Your task to perform on an android device: snooze an email in the gmail app Image 0: 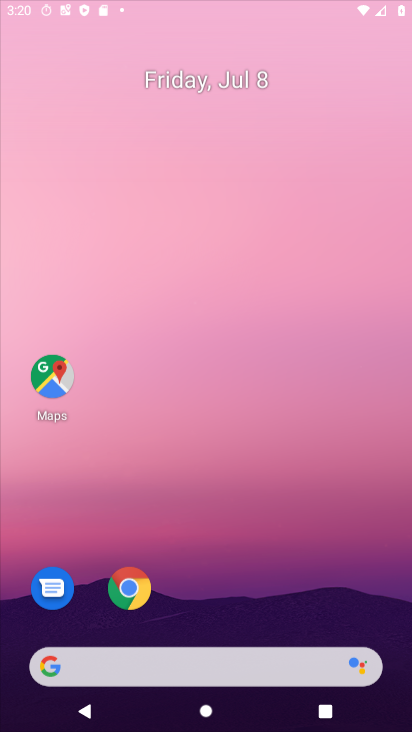
Step 0: press home button
Your task to perform on an android device: snooze an email in the gmail app Image 1: 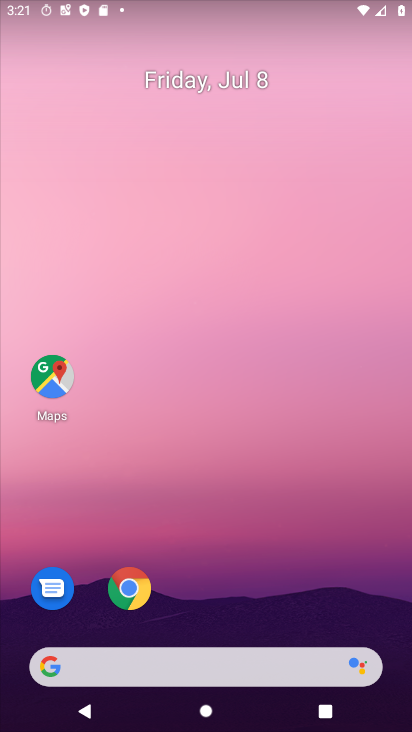
Step 1: drag from (215, 640) to (218, 180)
Your task to perform on an android device: snooze an email in the gmail app Image 2: 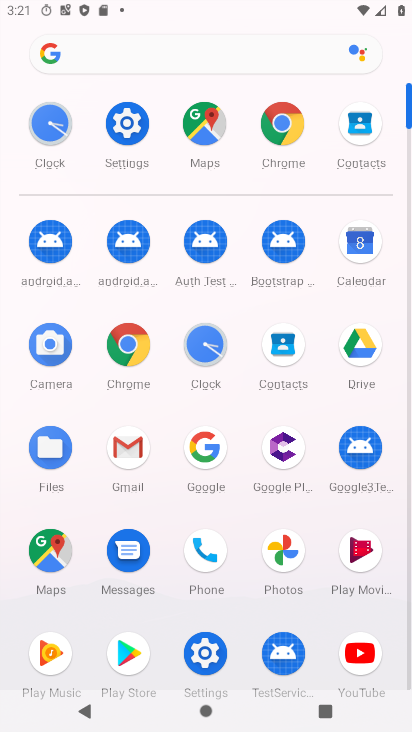
Step 2: click (126, 452)
Your task to perform on an android device: snooze an email in the gmail app Image 3: 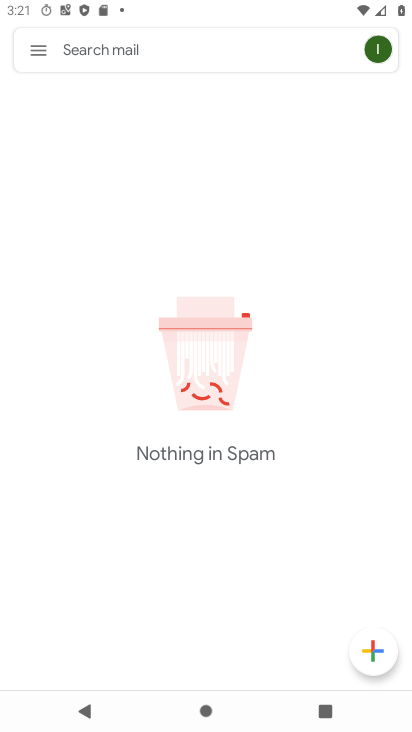
Step 3: click (38, 48)
Your task to perform on an android device: snooze an email in the gmail app Image 4: 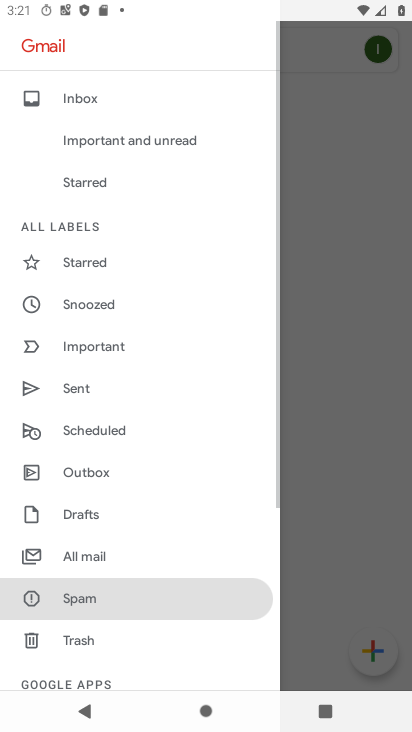
Step 4: click (71, 562)
Your task to perform on an android device: snooze an email in the gmail app Image 5: 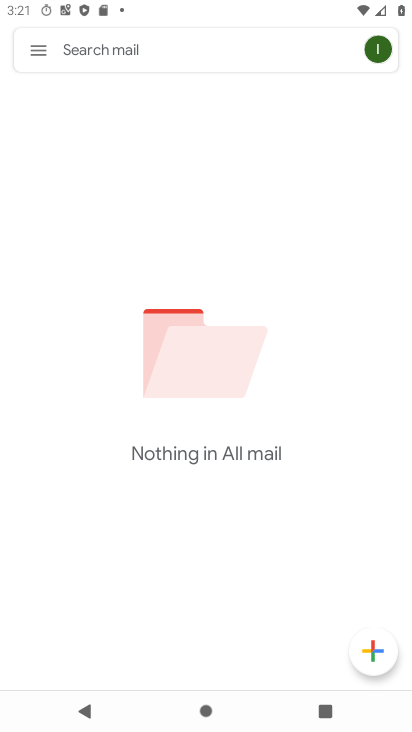
Step 5: task complete